Your task to perform on an android device: open app "Speedtest by Ookla" Image 0: 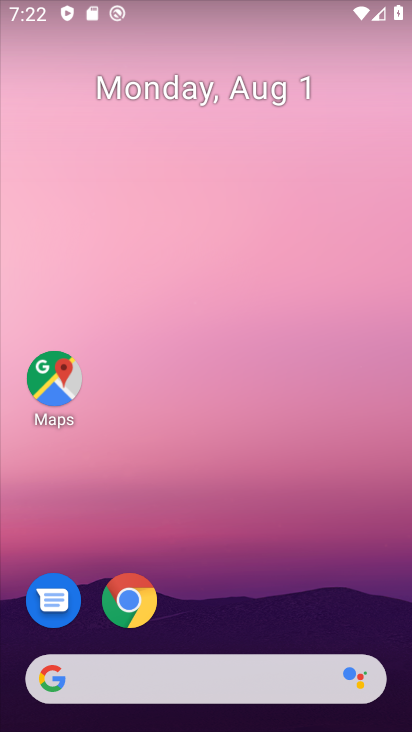
Step 0: drag from (195, 571) to (76, 8)
Your task to perform on an android device: open app "Speedtest by Ookla" Image 1: 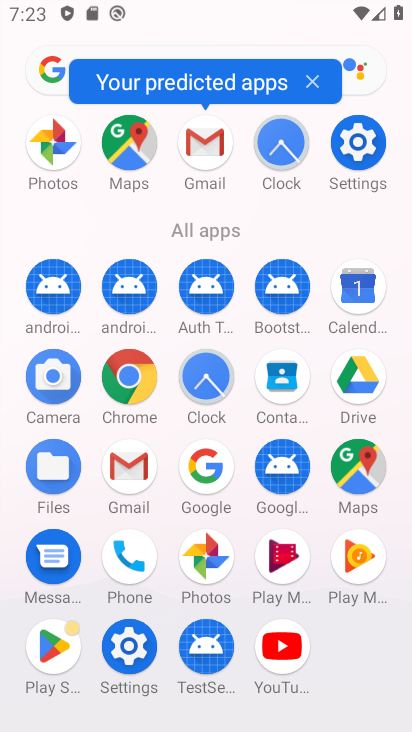
Step 1: click (59, 641)
Your task to perform on an android device: open app "Speedtest by Ookla" Image 2: 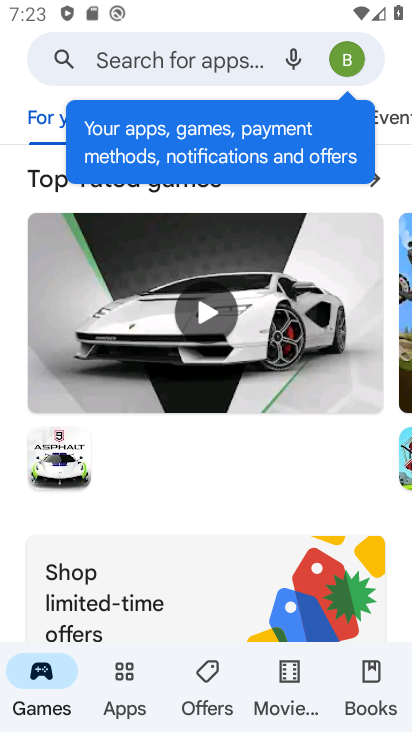
Step 2: click (179, 55)
Your task to perform on an android device: open app "Speedtest by Ookla" Image 3: 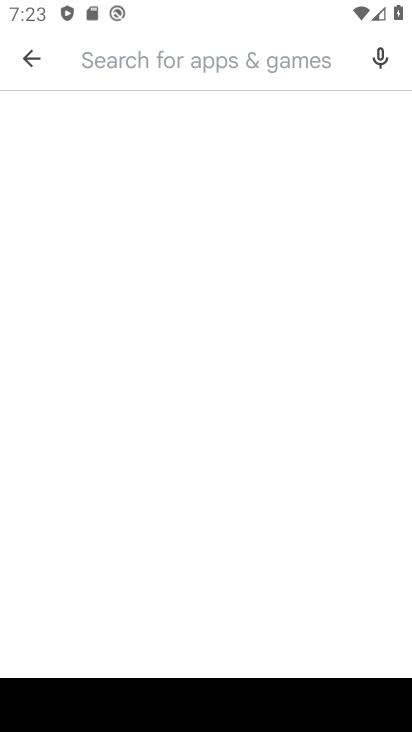
Step 3: type "Speedtest by Ookla"
Your task to perform on an android device: open app "Speedtest by Ookla" Image 4: 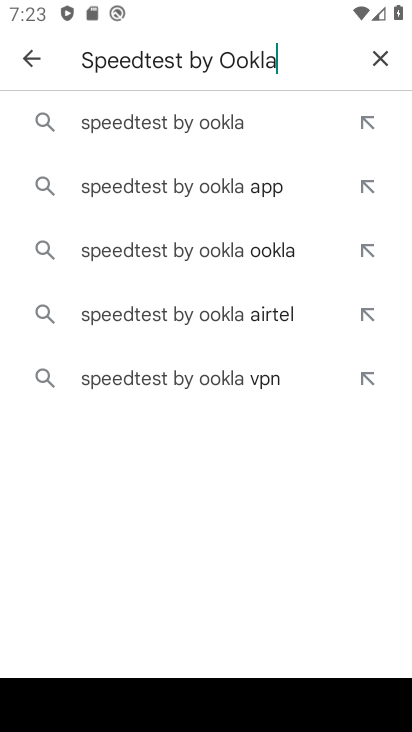
Step 4: click (202, 130)
Your task to perform on an android device: open app "Speedtest by Ookla" Image 5: 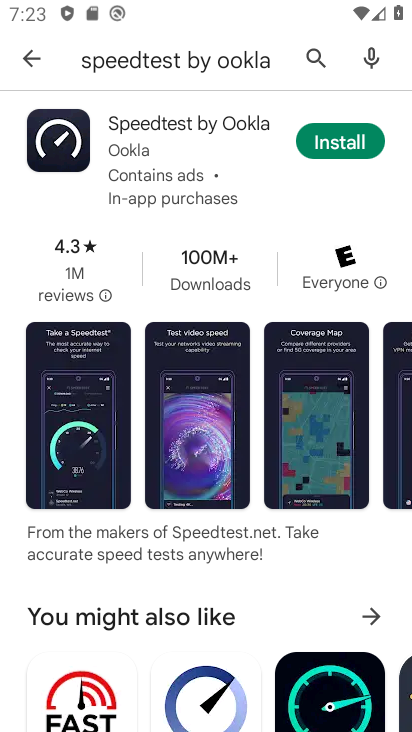
Step 5: click (356, 145)
Your task to perform on an android device: open app "Speedtest by Ookla" Image 6: 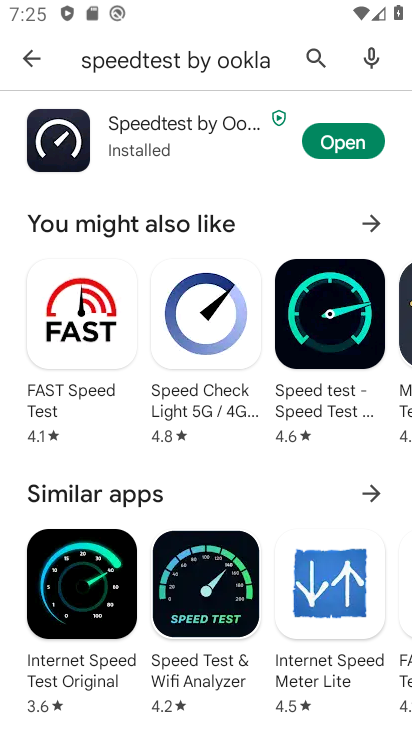
Step 6: click (336, 143)
Your task to perform on an android device: open app "Speedtest by Ookla" Image 7: 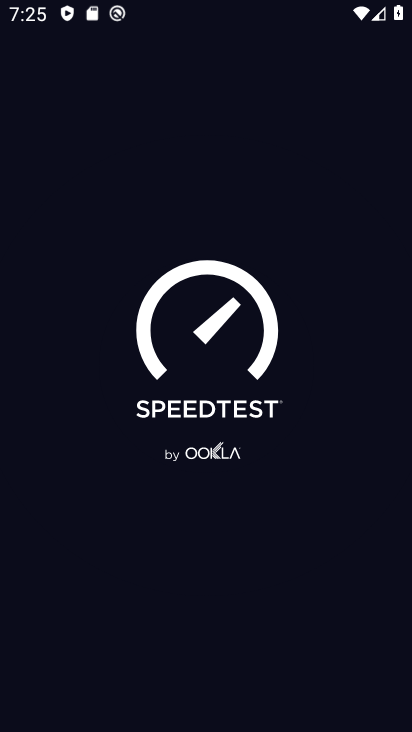
Step 7: task complete